Your task to perform on an android device: toggle data saver in the chrome app Image 0: 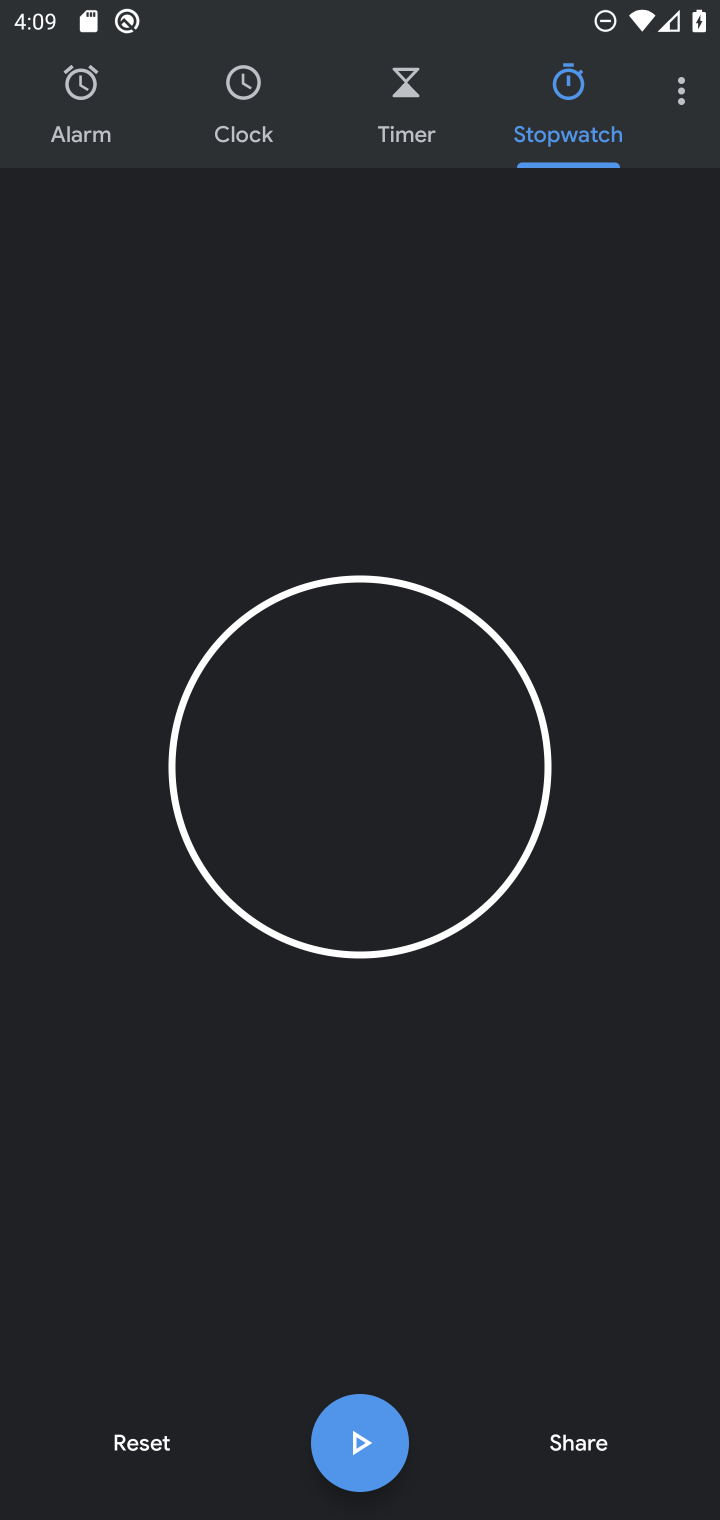
Step 0: press back button
Your task to perform on an android device: toggle data saver in the chrome app Image 1: 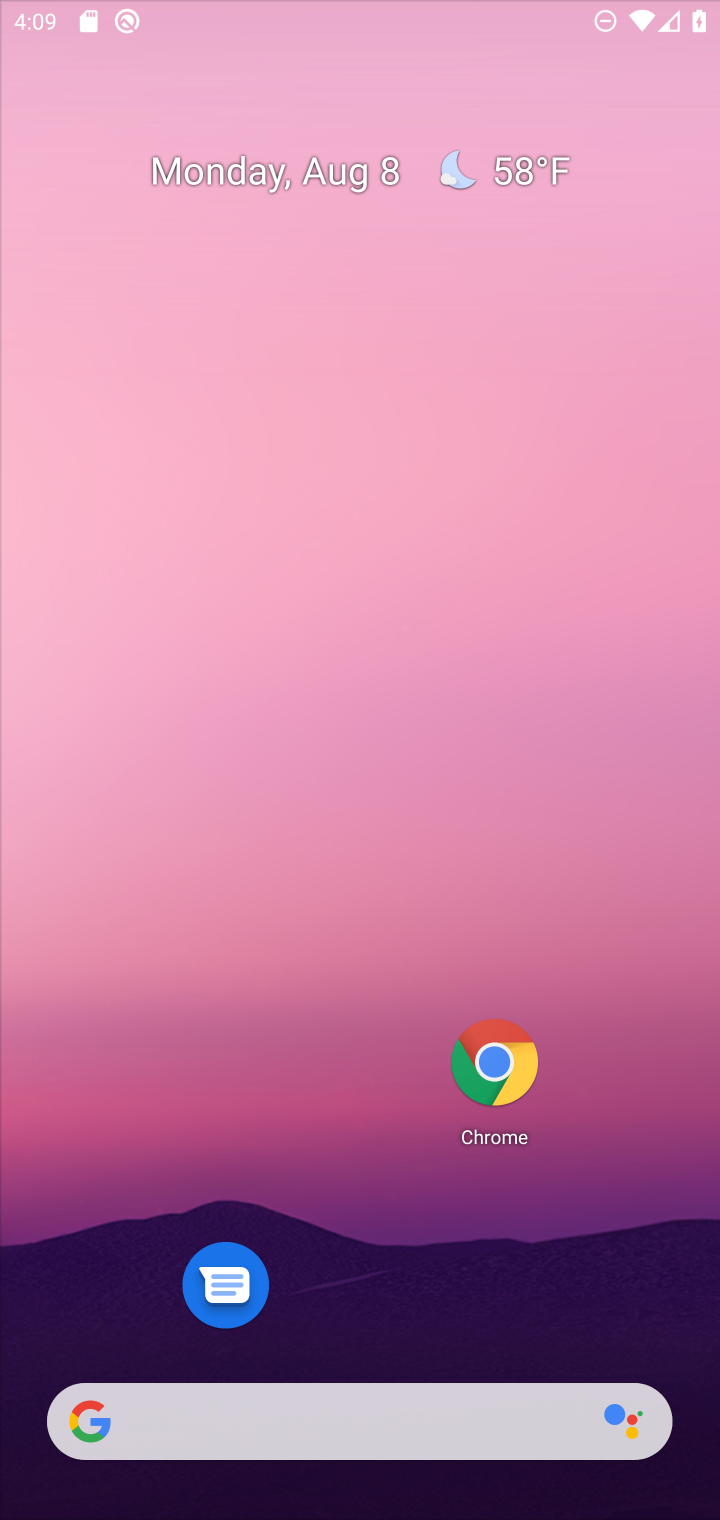
Step 1: press back button
Your task to perform on an android device: toggle data saver in the chrome app Image 2: 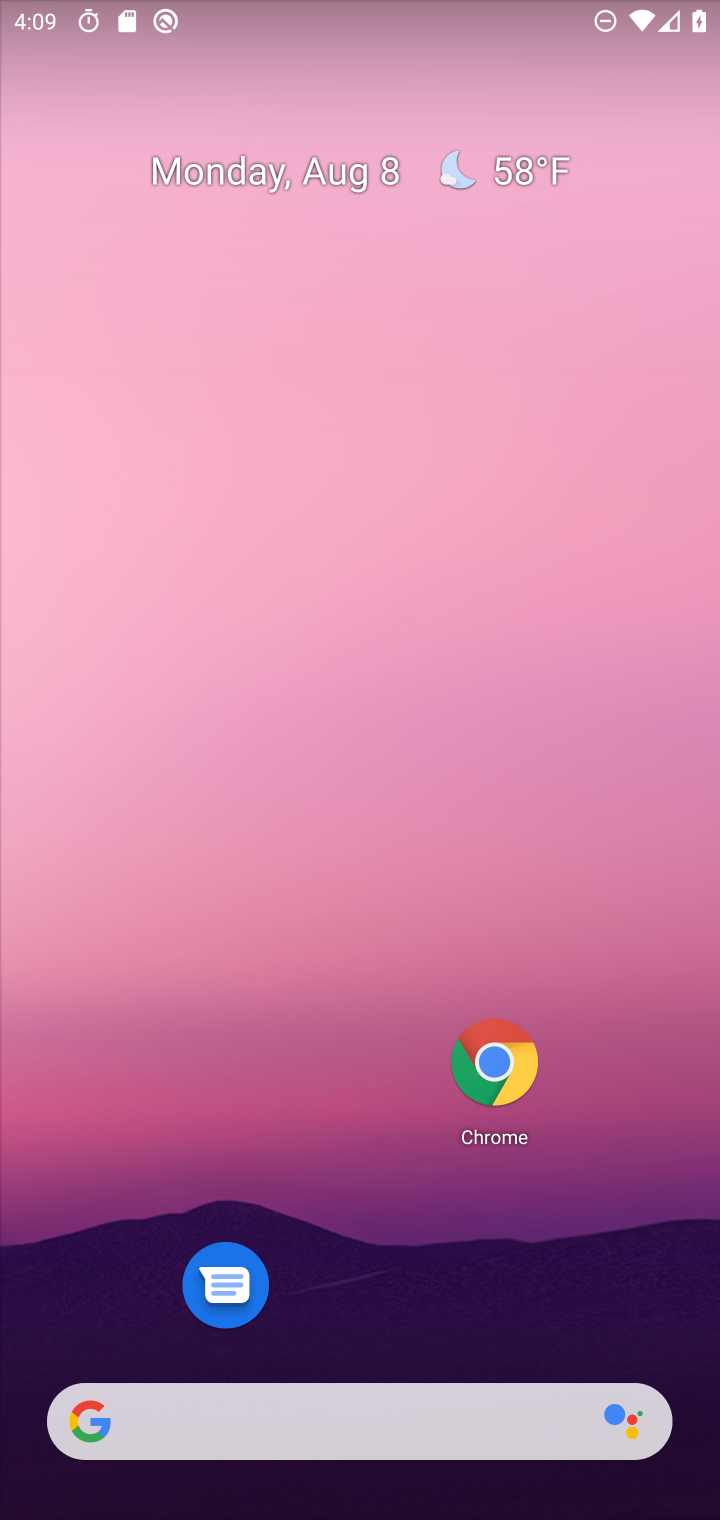
Step 2: click (479, 1058)
Your task to perform on an android device: toggle data saver in the chrome app Image 3: 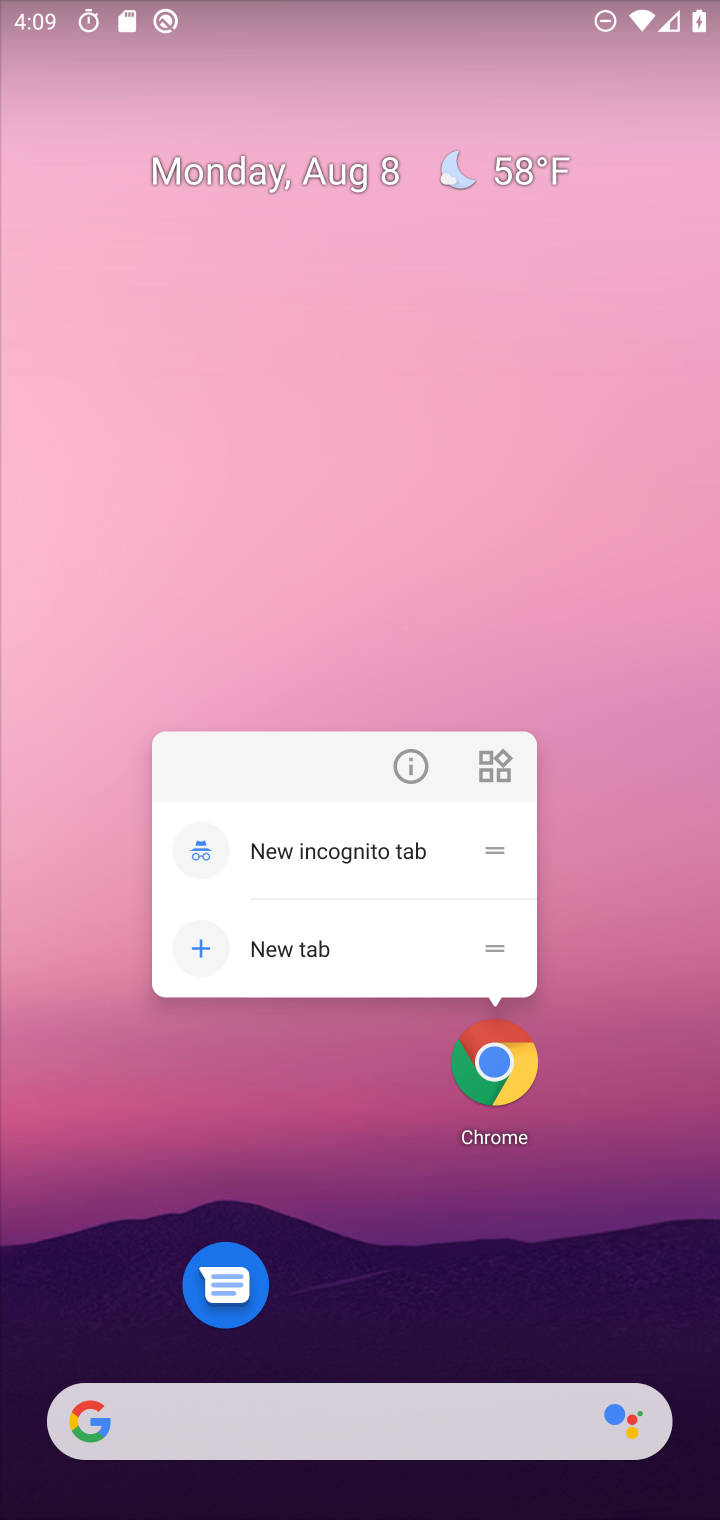
Step 3: click (497, 1069)
Your task to perform on an android device: toggle data saver in the chrome app Image 4: 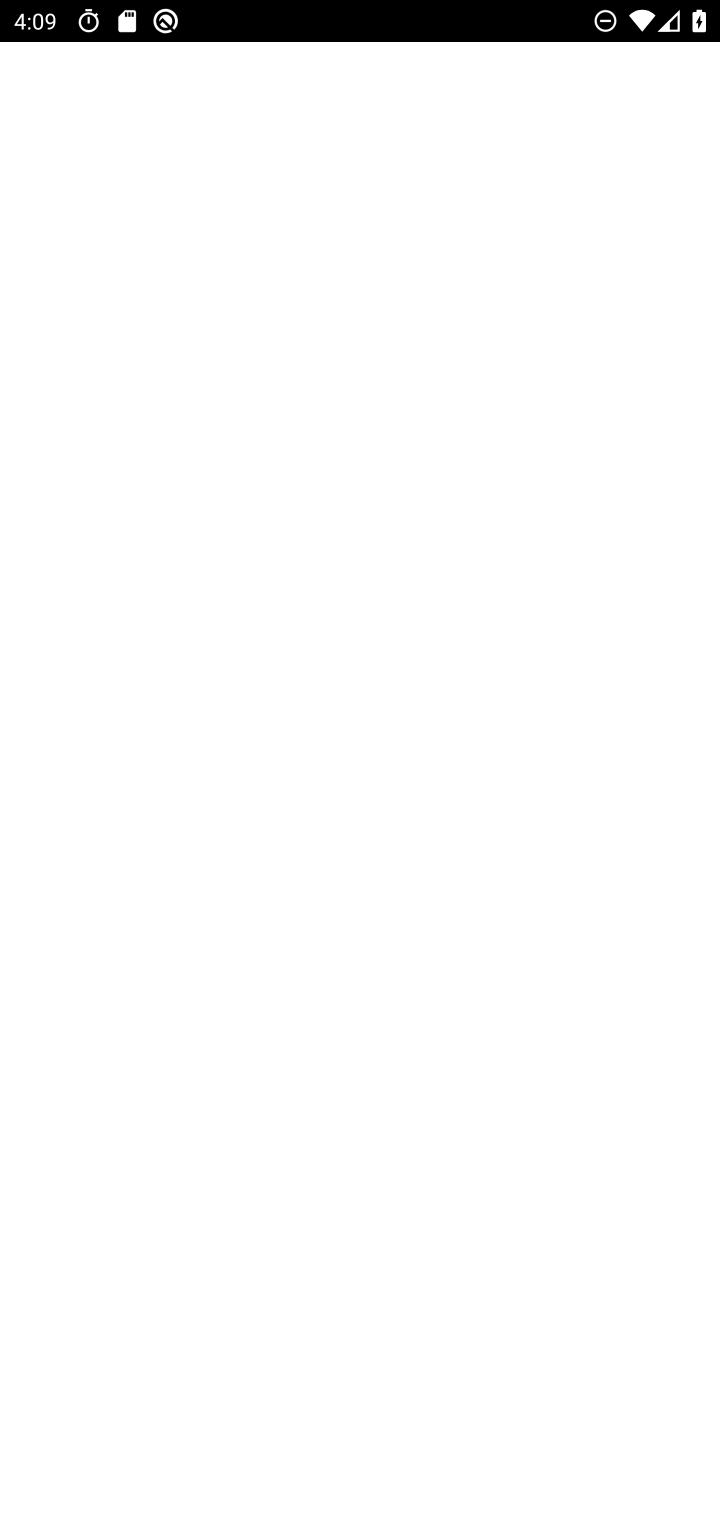
Step 4: click (502, 1052)
Your task to perform on an android device: toggle data saver in the chrome app Image 5: 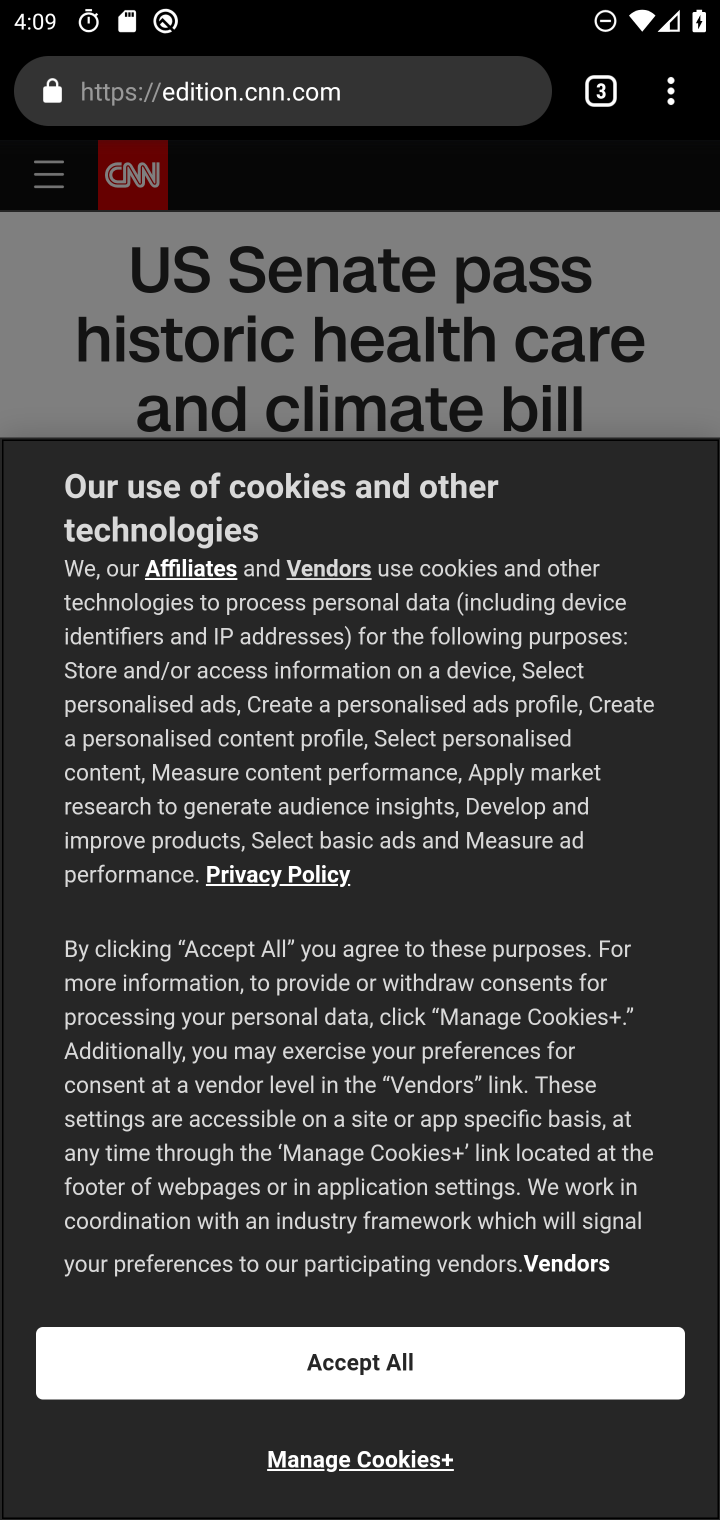
Step 5: drag from (673, 72) to (371, 1111)
Your task to perform on an android device: toggle data saver in the chrome app Image 6: 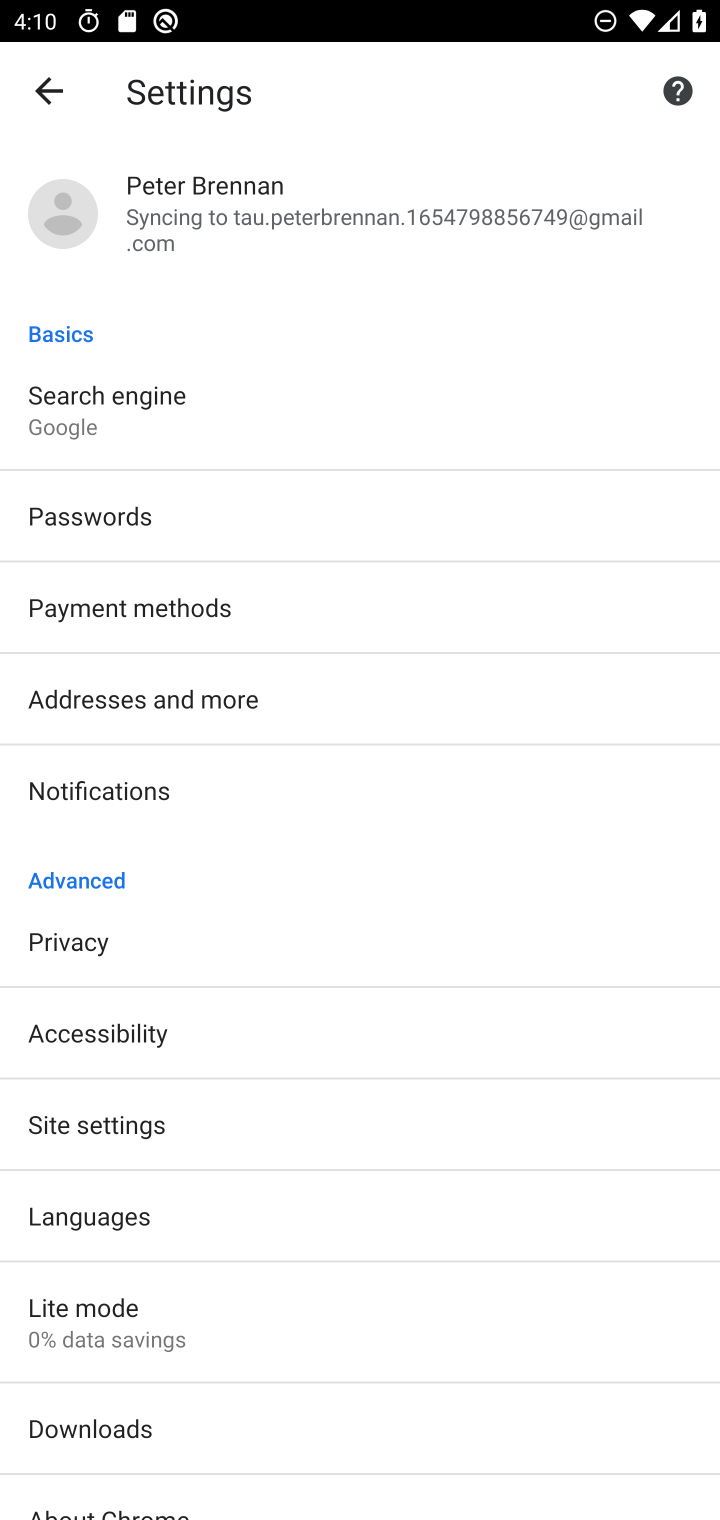
Step 6: click (153, 1333)
Your task to perform on an android device: toggle data saver in the chrome app Image 7: 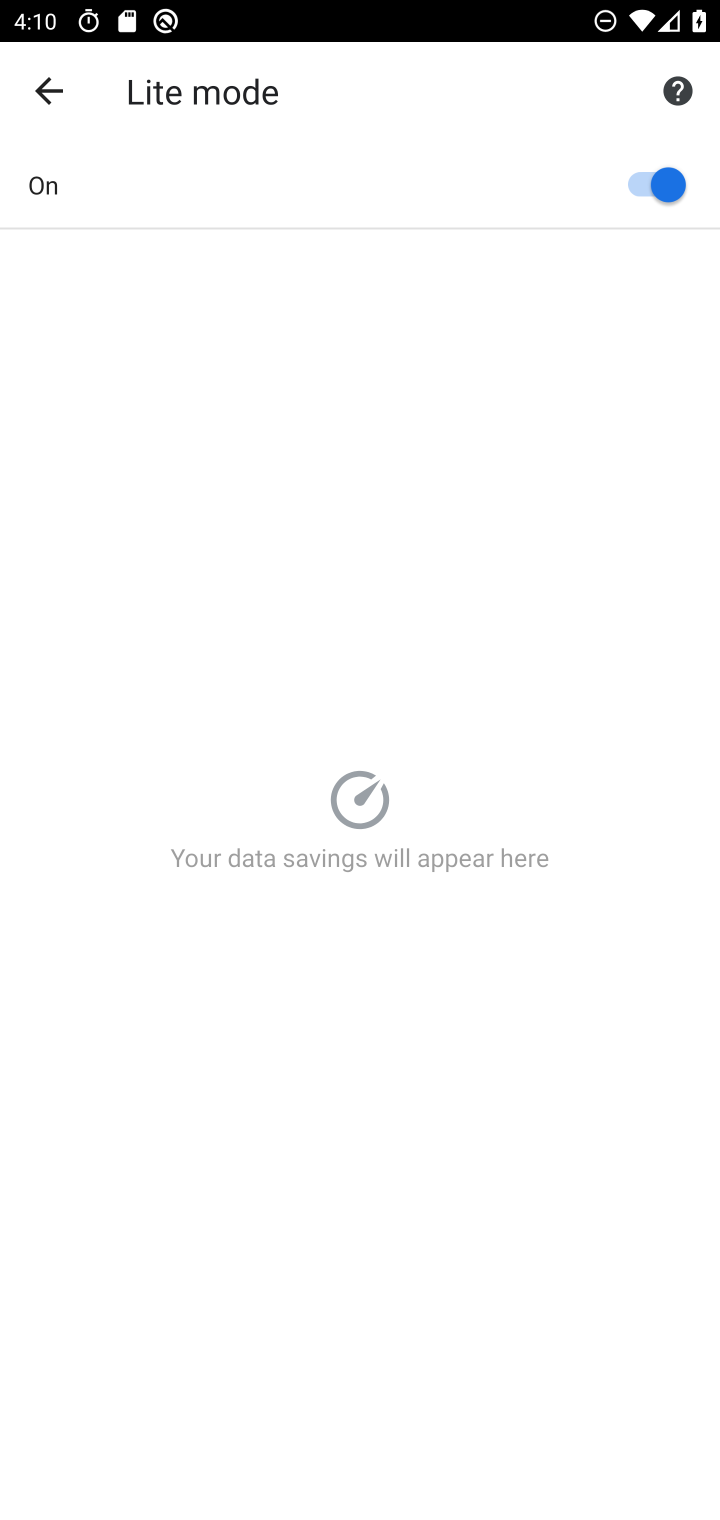
Step 7: click (653, 186)
Your task to perform on an android device: toggle data saver in the chrome app Image 8: 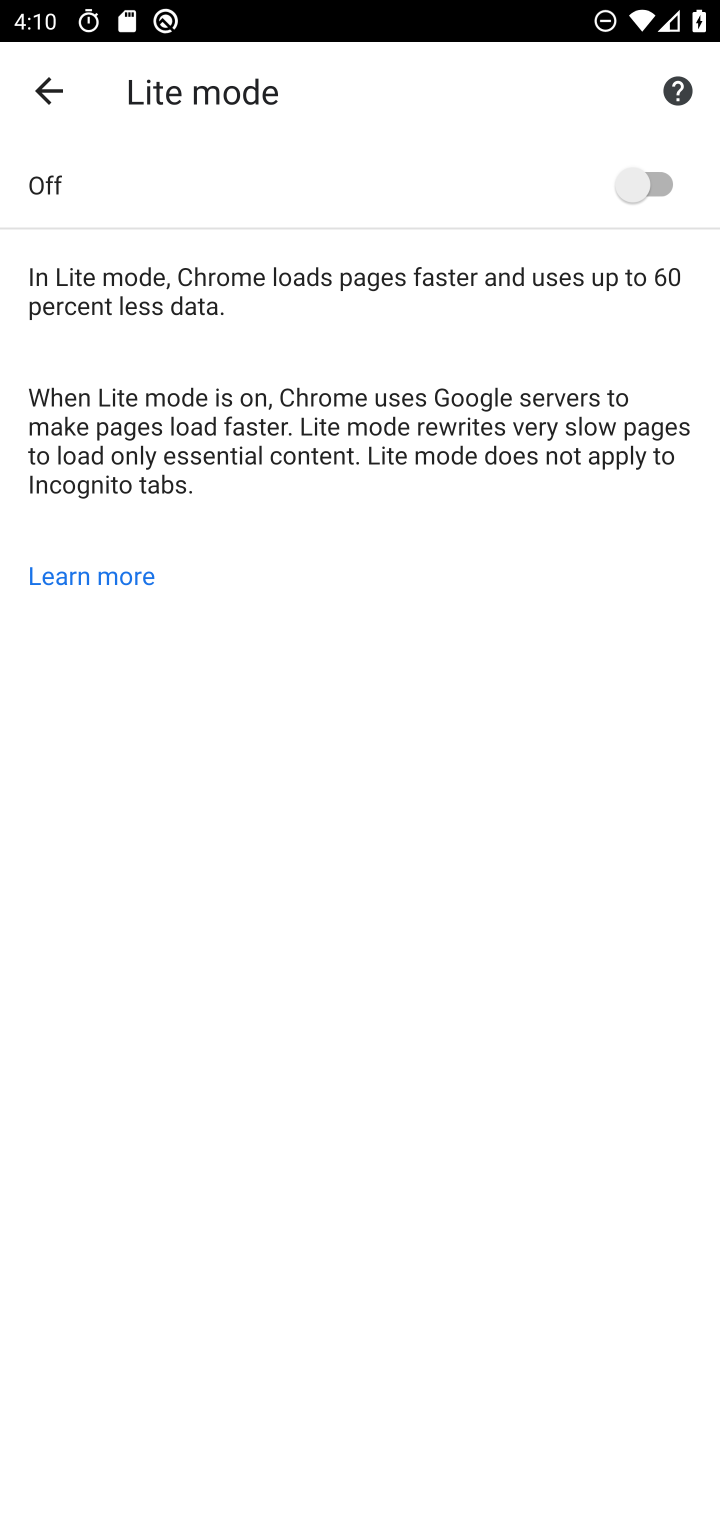
Step 8: task complete